Your task to perform on an android device: See recent photos Image 0: 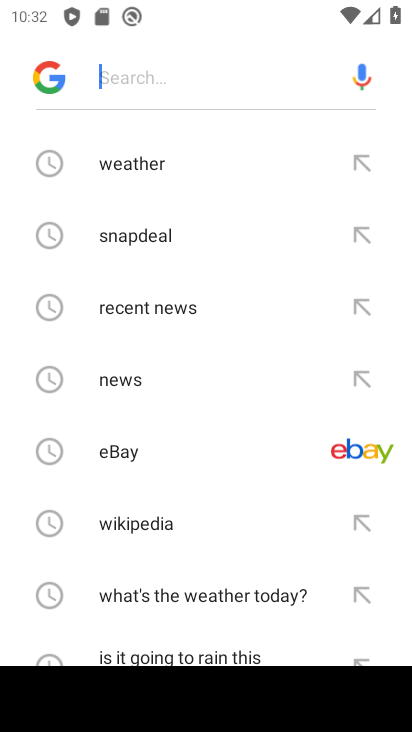
Step 0: press home button
Your task to perform on an android device: See recent photos Image 1: 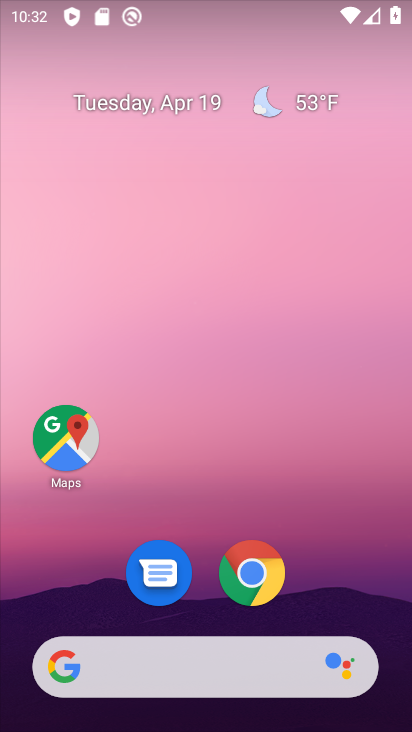
Step 1: drag from (209, 723) to (180, 112)
Your task to perform on an android device: See recent photos Image 2: 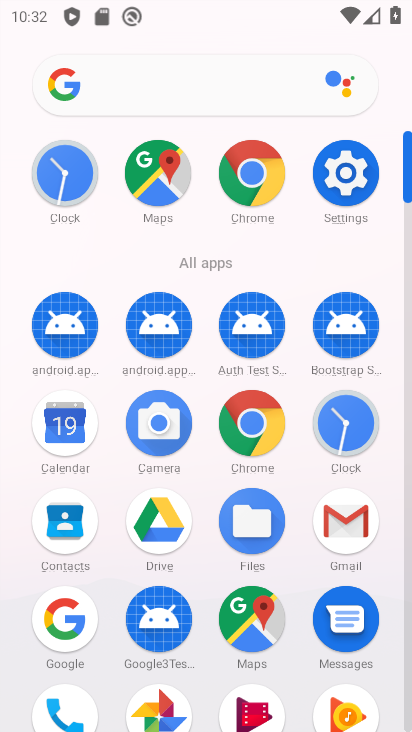
Step 2: click (158, 712)
Your task to perform on an android device: See recent photos Image 3: 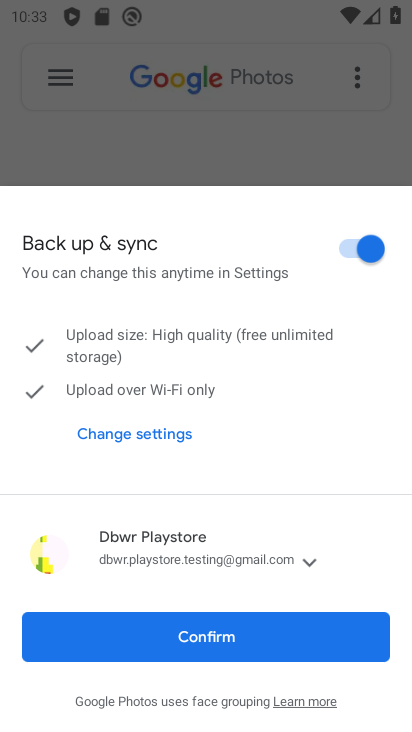
Step 3: click (207, 634)
Your task to perform on an android device: See recent photos Image 4: 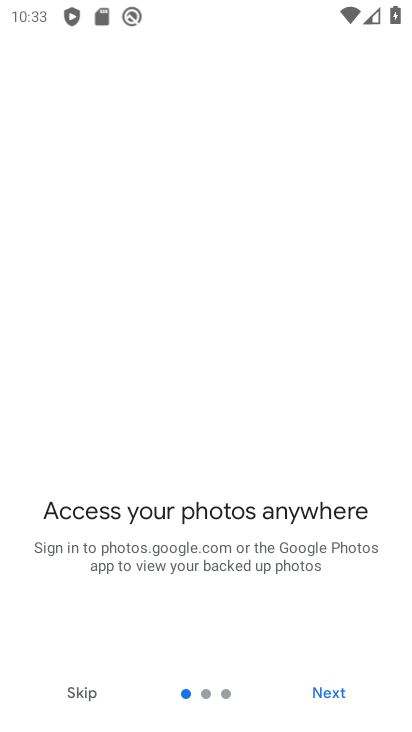
Step 4: click (329, 688)
Your task to perform on an android device: See recent photos Image 5: 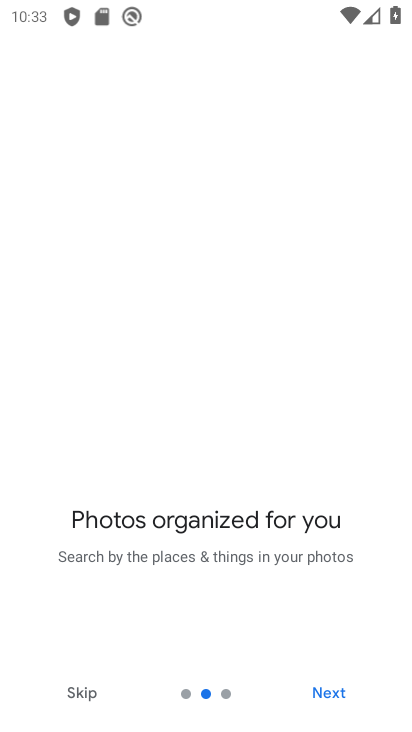
Step 5: click (329, 688)
Your task to perform on an android device: See recent photos Image 6: 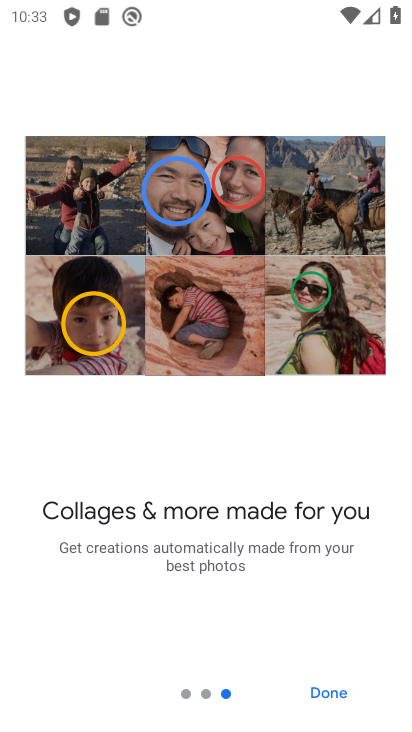
Step 6: click (329, 688)
Your task to perform on an android device: See recent photos Image 7: 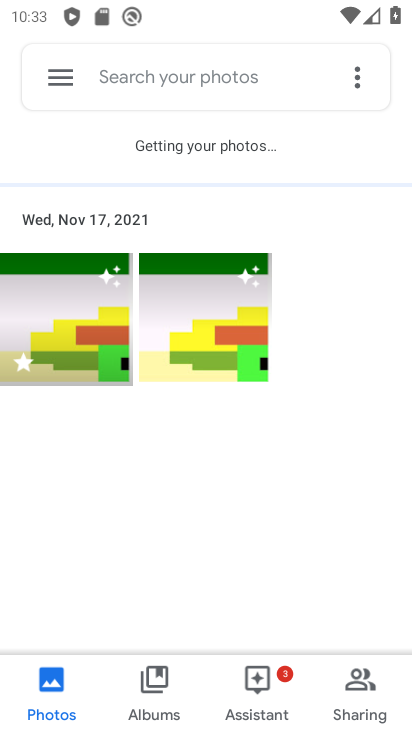
Step 7: click (72, 318)
Your task to perform on an android device: See recent photos Image 8: 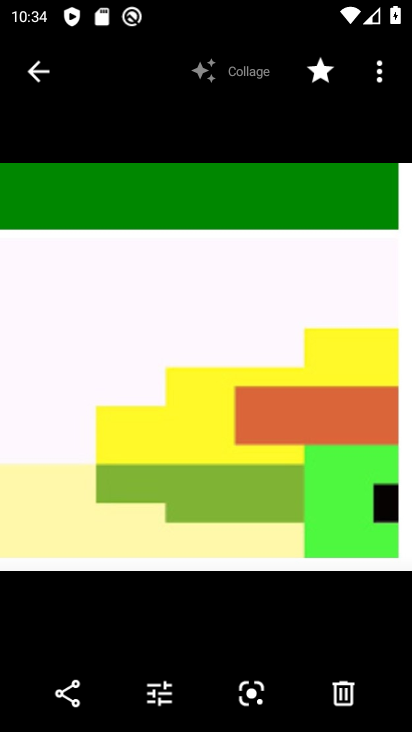
Step 8: task complete